Your task to perform on an android device: Search for vegetarian restaurants on Maps Image 0: 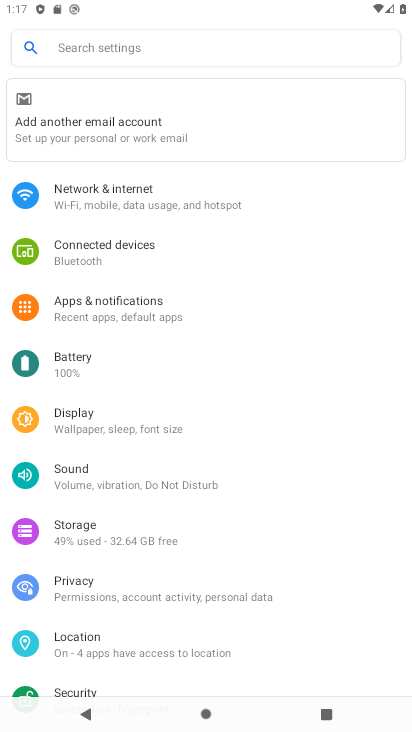
Step 0: press home button
Your task to perform on an android device: Search for vegetarian restaurants on Maps Image 1: 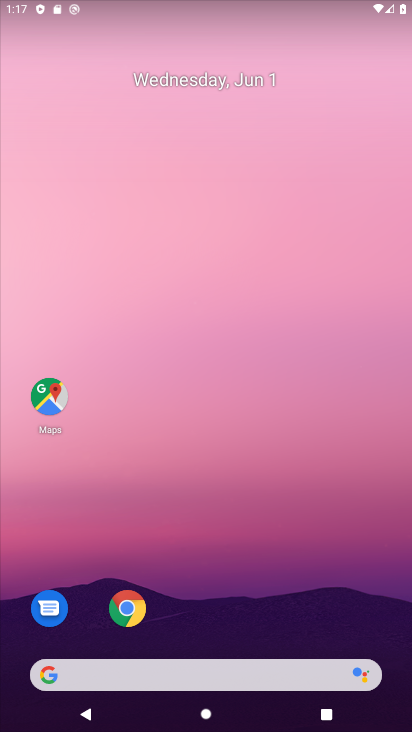
Step 1: click (172, 642)
Your task to perform on an android device: Search for vegetarian restaurants on Maps Image 2: 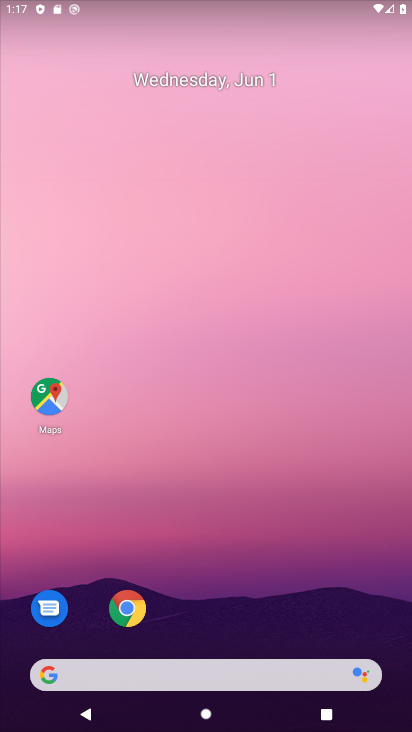
Step 2: click (51, 390)
Your task to perform on an android device: Search for vegetarian restaurants on Maps Image 3: 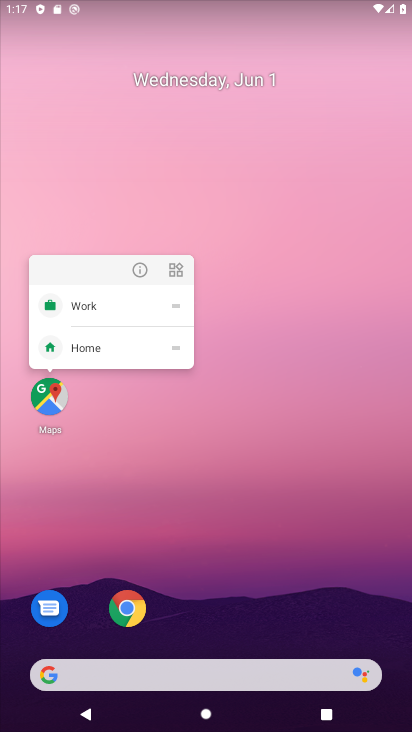
Step 3: click (39, 407)
Your task to perform on an android device: Search for vegetarian restaurants on Maps Image 4: 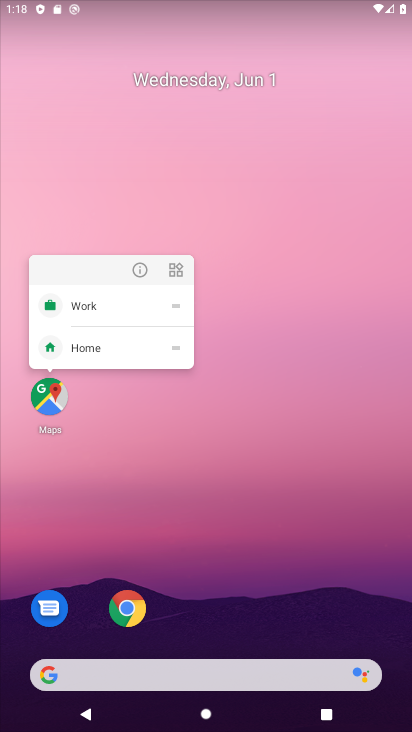
Step 4: click (52, 417)
Your task to perform on an android device: Search for vegetarian restaurants on Maps Image 5: 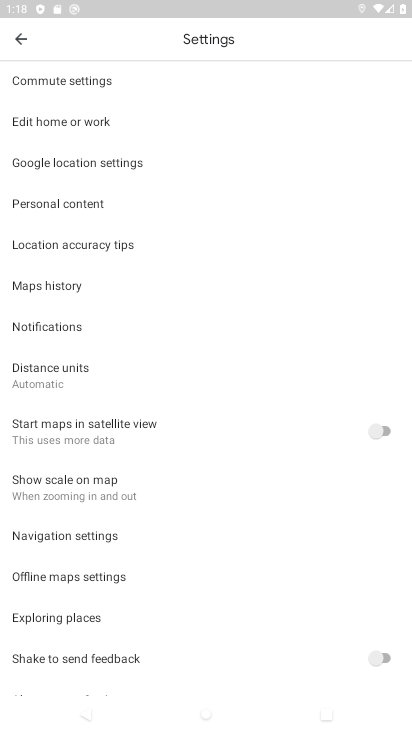
Step 5: press back button
Your task to perform on an android device: Search for vegetarian restaurants on Maps Image 6: 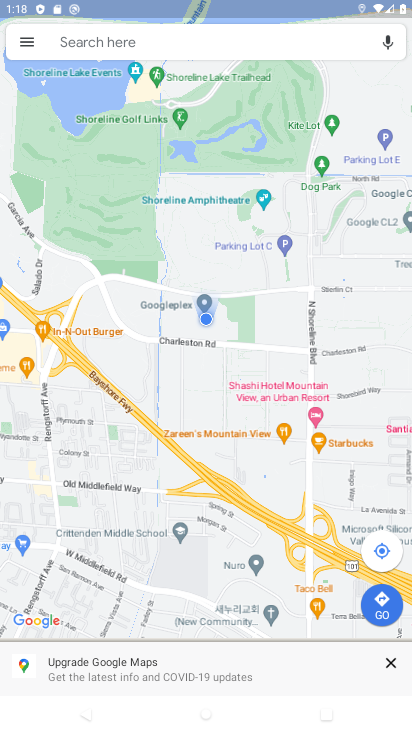
Step 6: click (198, 34)
Your task to perform on an android device: Search for vegetarian restaurants on Maps Image 7: 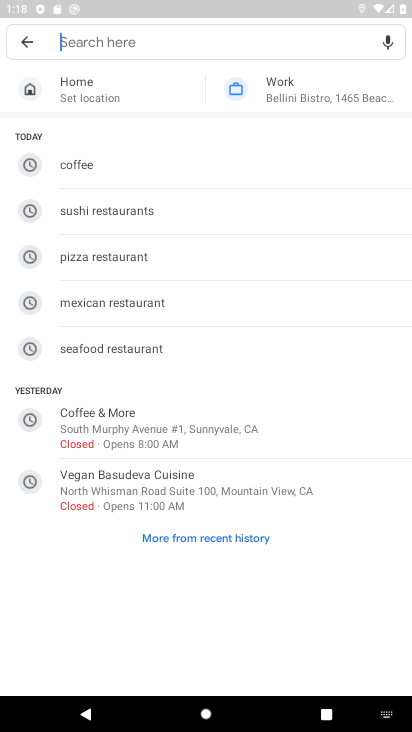
Step 7: type "vegetarian restaurants"
Your task to perform on an android device: Search for vegetarian restaurants on Maps Image 8: 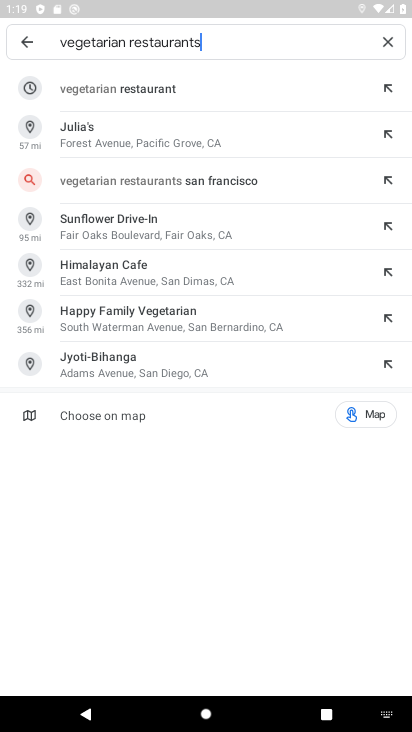
Step 8: click (145, 92)
Your task to perform on an android device: Search for vegetarian restaurants on Maps Image 9: 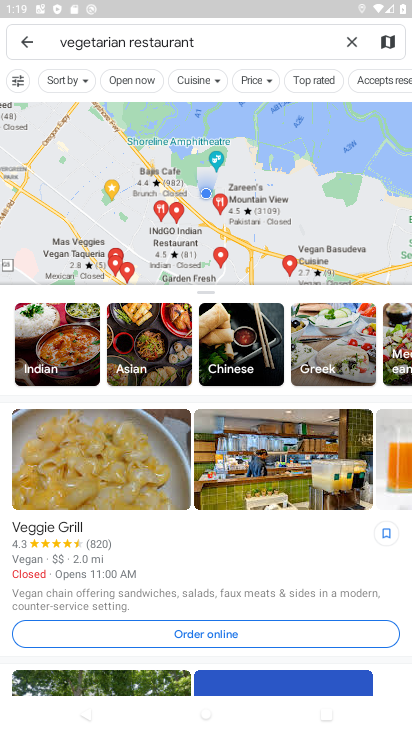
Step 9: task complete